Your task to perform on an android device: turn off notifications settings in the gmail app Image 0: 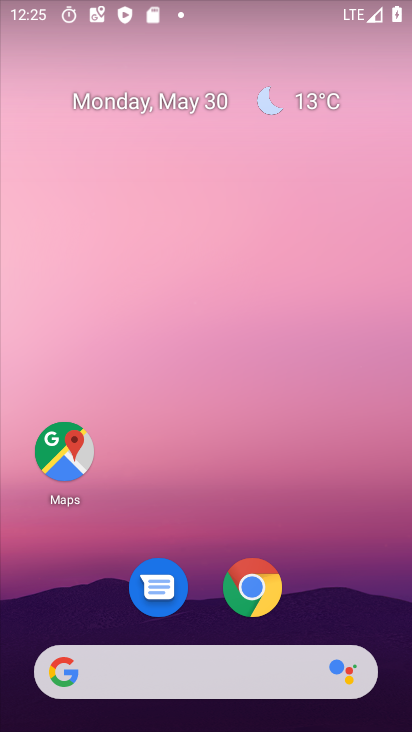
Step 0: drag from (325, 349) to (301, 31)
Your task to perform on an android device: turn off notifications settings in the gmail app Image 1: 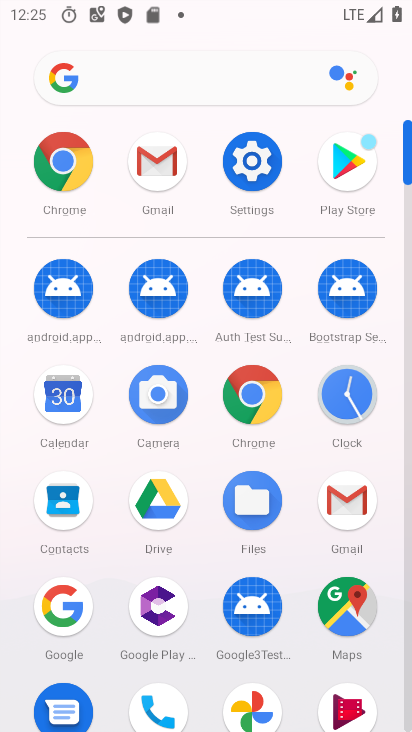
Step 1: click (173, 157)
Your task to perform on an android device: turn off notifications settings in the gmail app Image 2: 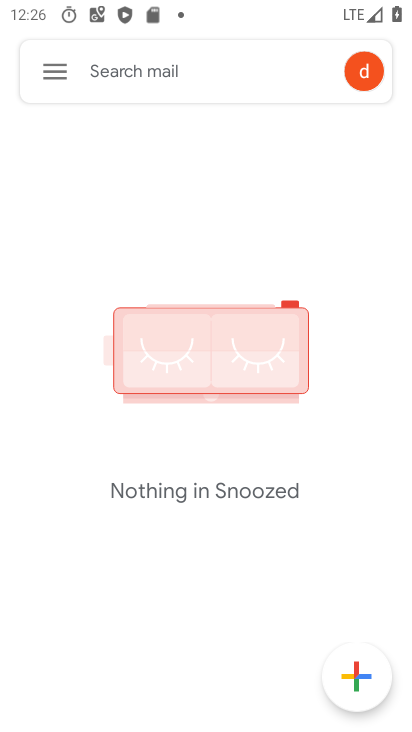
Step 2: click (56, 57)
Your task to perform on an android device: turn off notifications settings in the gmail app Image 3: 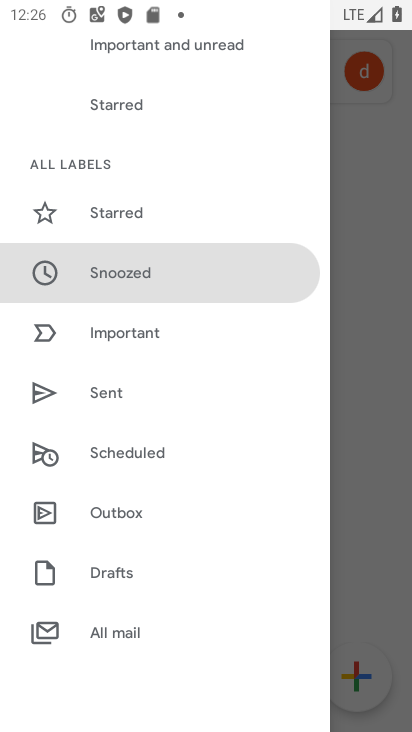
Step 3: drag from (101, 665) to (191, 75)
Your task to perform on an android device: turn off notifications settings in the gmail app Image 4: 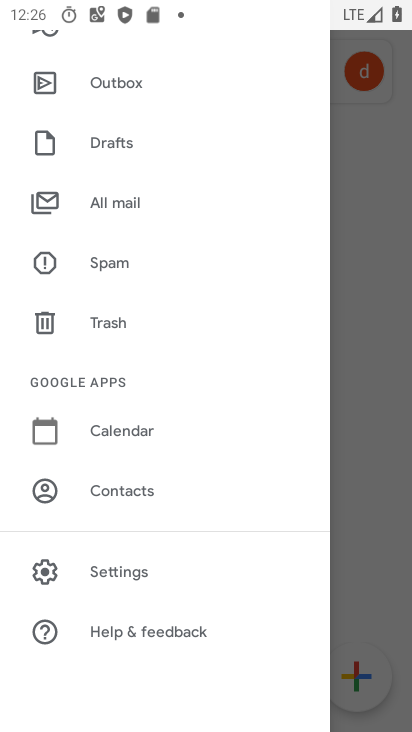
Step 4: click (147, 569)
Your task to perform on an android device: turn off notifications settings in the gmail app Image 5: 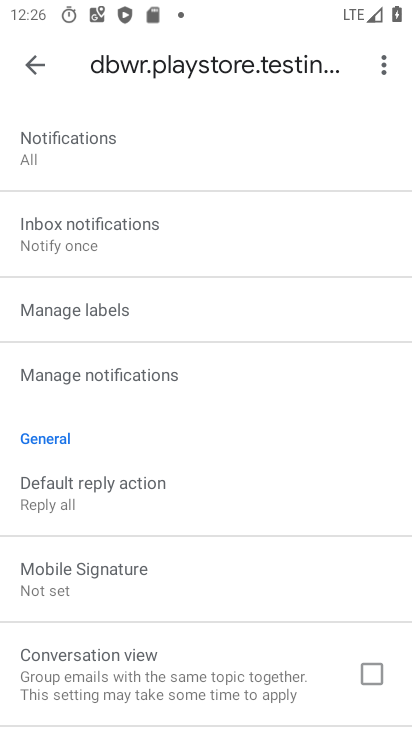
Step 5: drag from (217, 535) to (231, 184)
Your task to perform on an android device: turn off notifications settings in the gmail app Image 6: 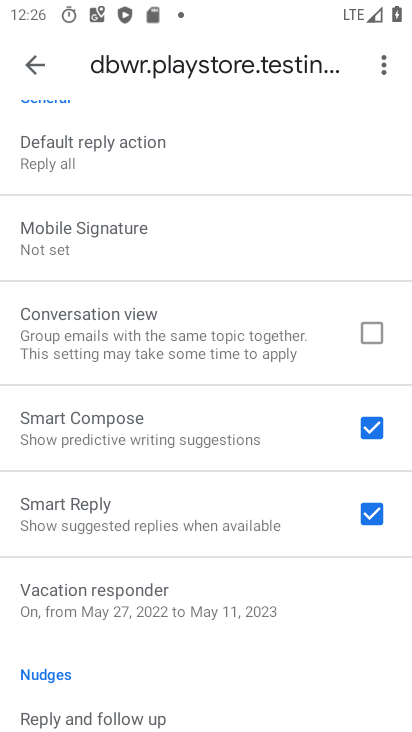
Step 6: drag from (231, 195) to (221, 582)
Your task to perform on an android device: turn off notifications settings in the gmail app Image 7: 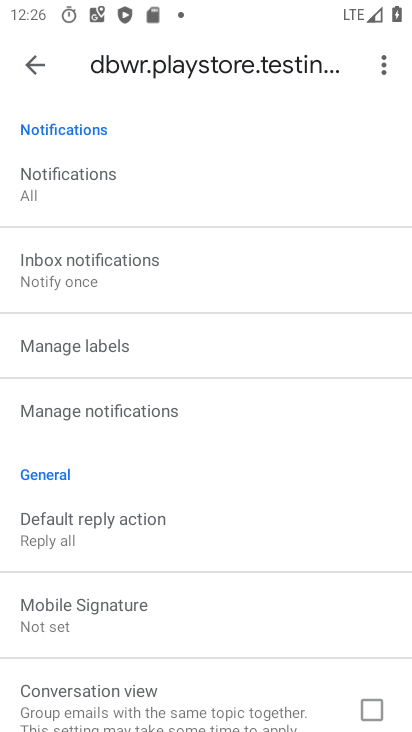
Step 7: click (168, 409)
Your task to perform on an android device: turn off notifications settings in the gmail app Image 8: 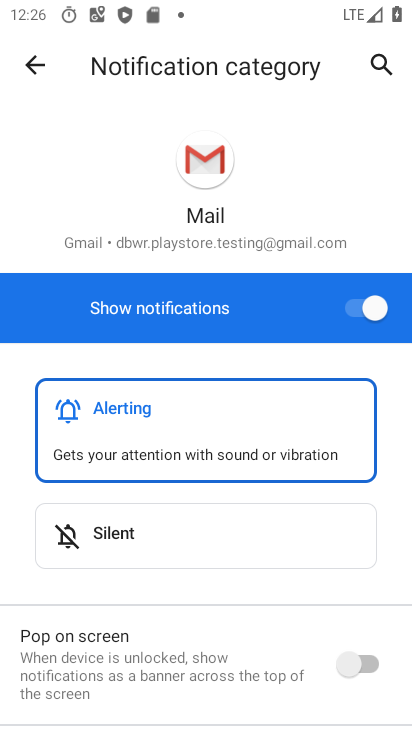
Step 8: click (350, 317)
Your task to perform on an android device: turn off notifications settings in the gmail app Image 9: 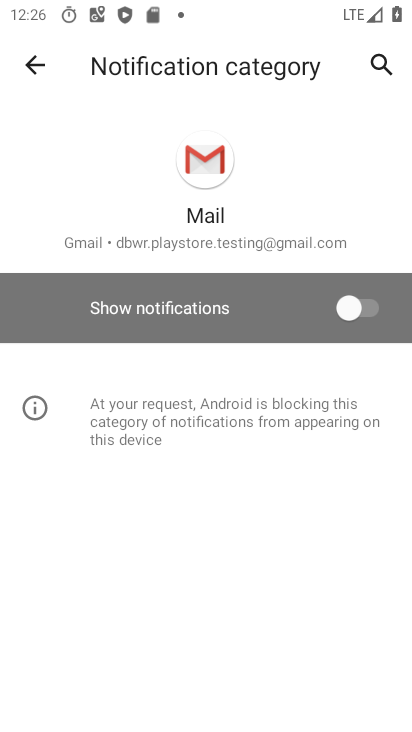
Step 9: task complete